Your task to perform on an android device: Find coffee shops on Maps Image 0: 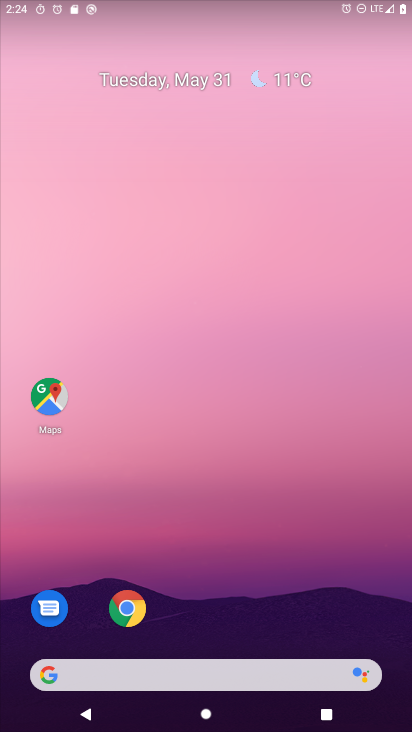
Step 0: click (47, 397)
Your task to perform on an android device: Find coffee shops on Maps Image 1: 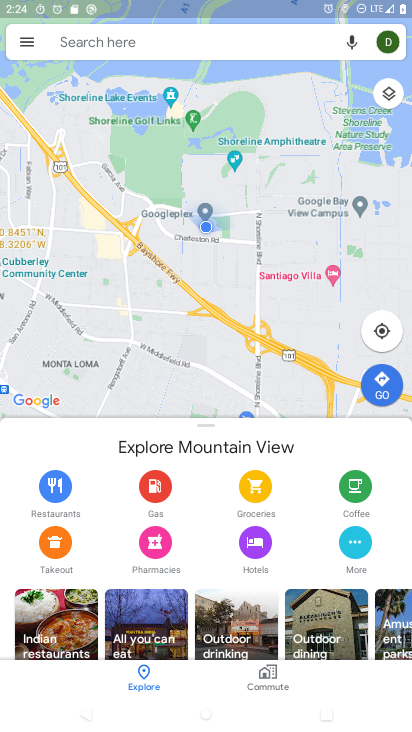
Step 1: click (161, 47)
Your task to perform on an android device: Find coffee shops on Maps Image 2: 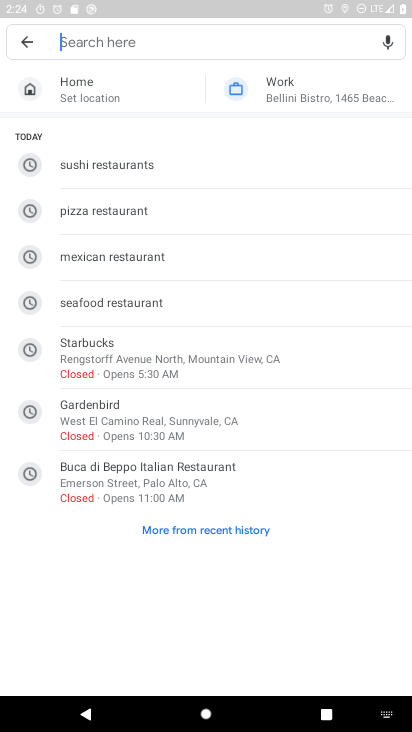
Step 2: type "coffee shops"
Your task to perform on an android device: Find coffee shops on Maps Image 3: 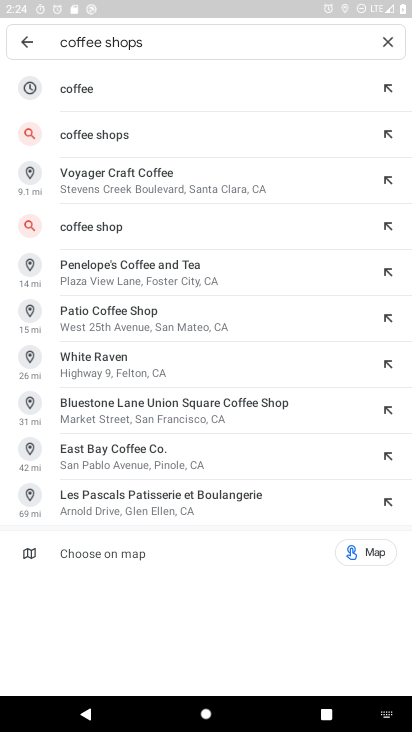
Step 3: click (126, 133)
Your task to perform on an android device: Find coffee shops on Maps Image 4: 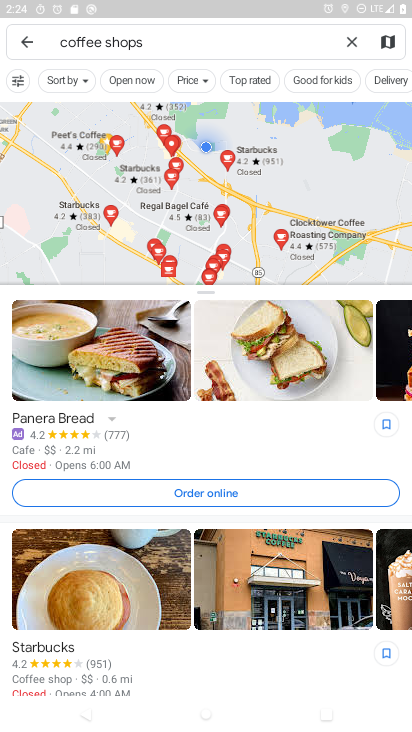
Step 4: task complete